Your task to perform on an android device: Do I have any events this weekend? Image 0: 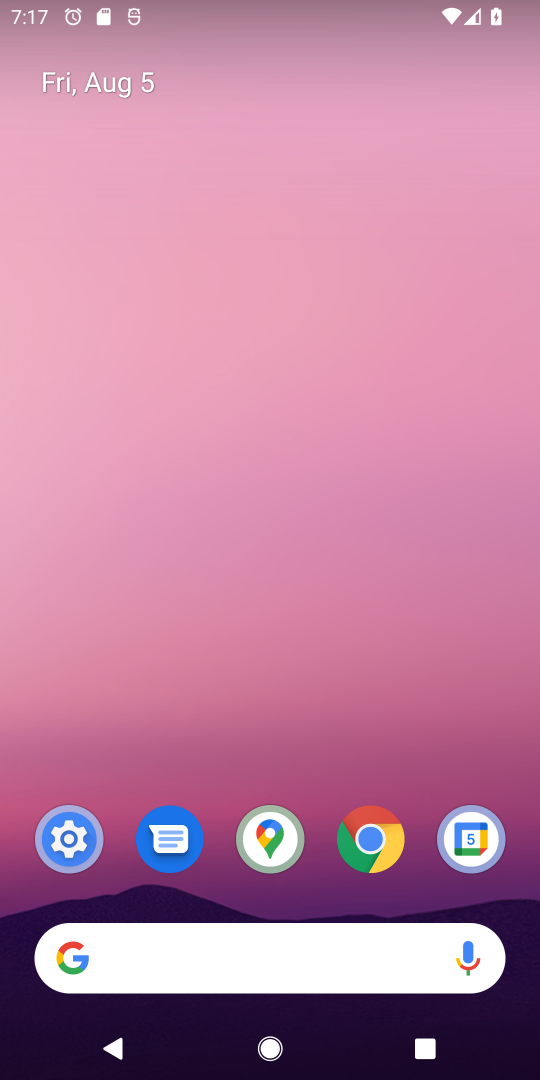
Step 0: drag from (292, 739) to (268, 275)
Your task to perform on an android device: Do I have any events this weekend? Image 1: 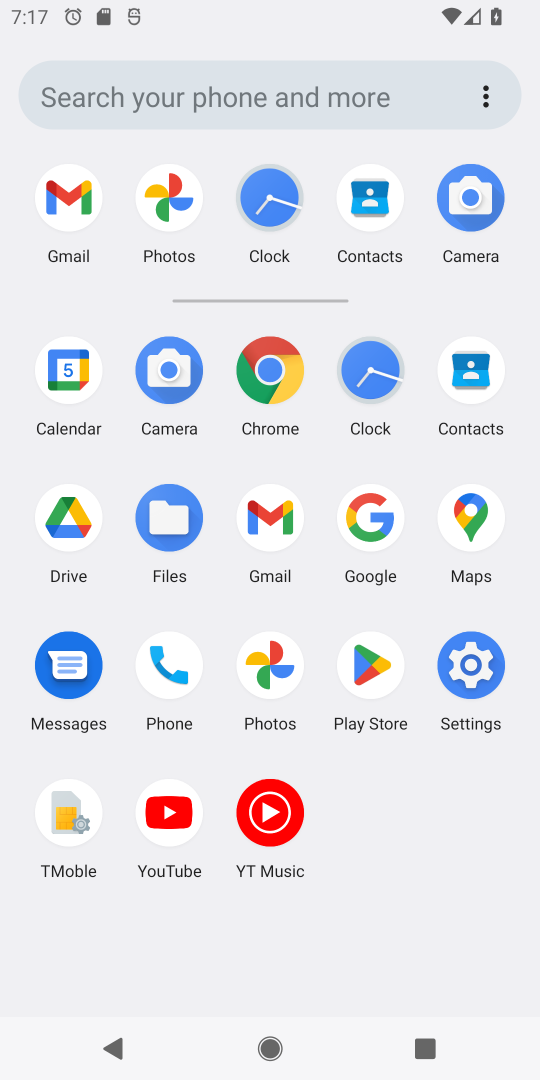
Step 1: click (93, 378)
Your task to perform on an android device: Do I have any events this weekend? Image 2: 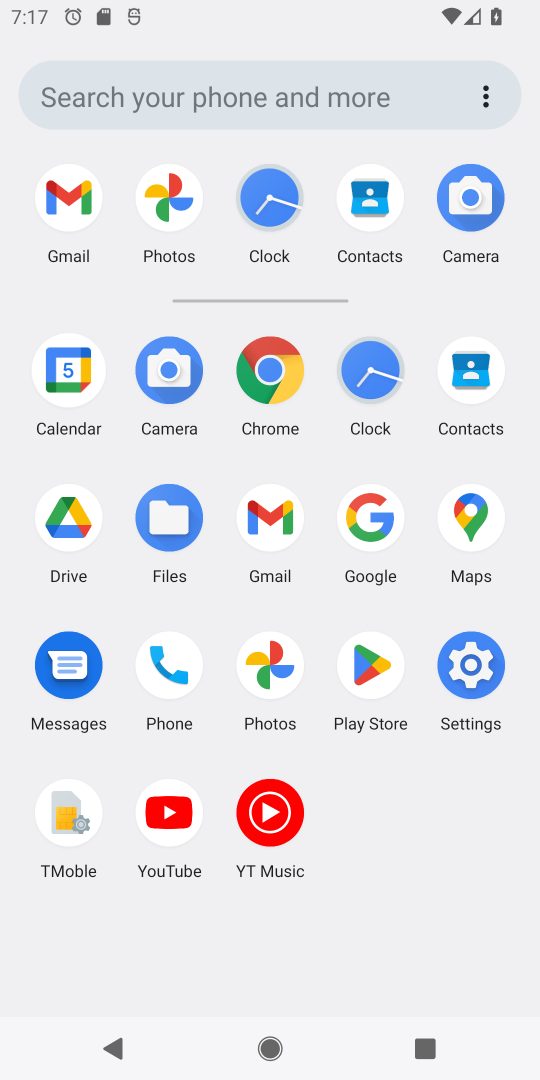
Step 2: click (59, 378)
Your task to perform on an android device: Do I have any events this weekend? Image 3: 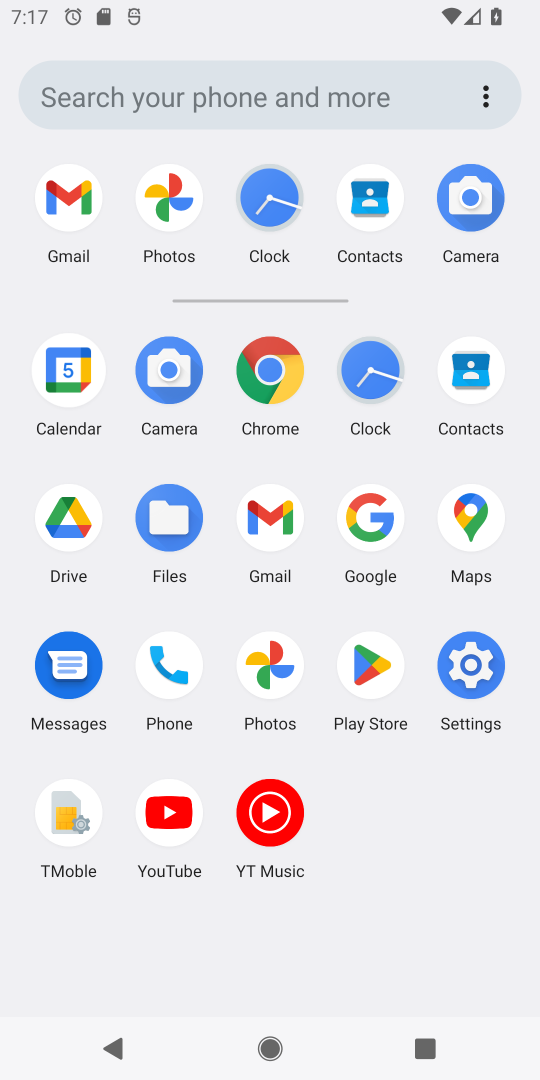
Step 3: click (59, 378)
Your task to perform on an android device: Do I have any events this weekend? Image 4: 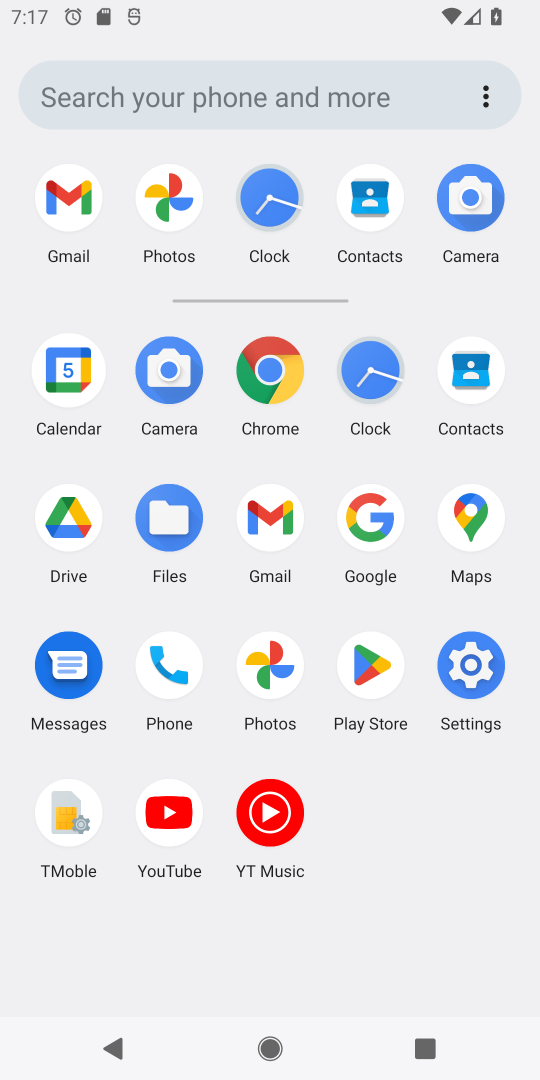
Step 4: click (59, 378)
Your task to perform on an android device: Do I have any events this weekend? Image 5: 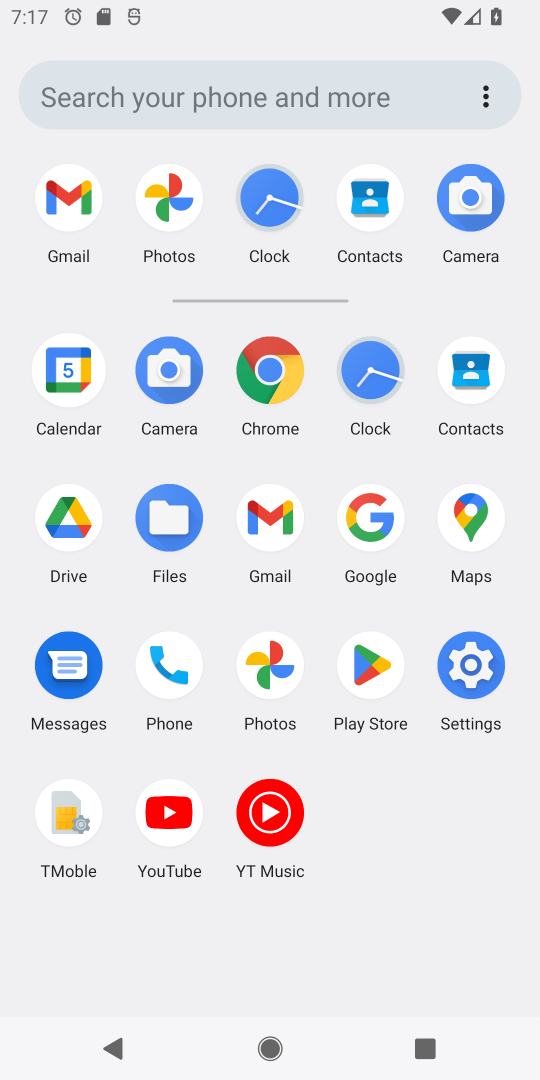
Step 5: click (59, 378)
Your task to perform on an android device: Do I have any events this weekend? Image 6: 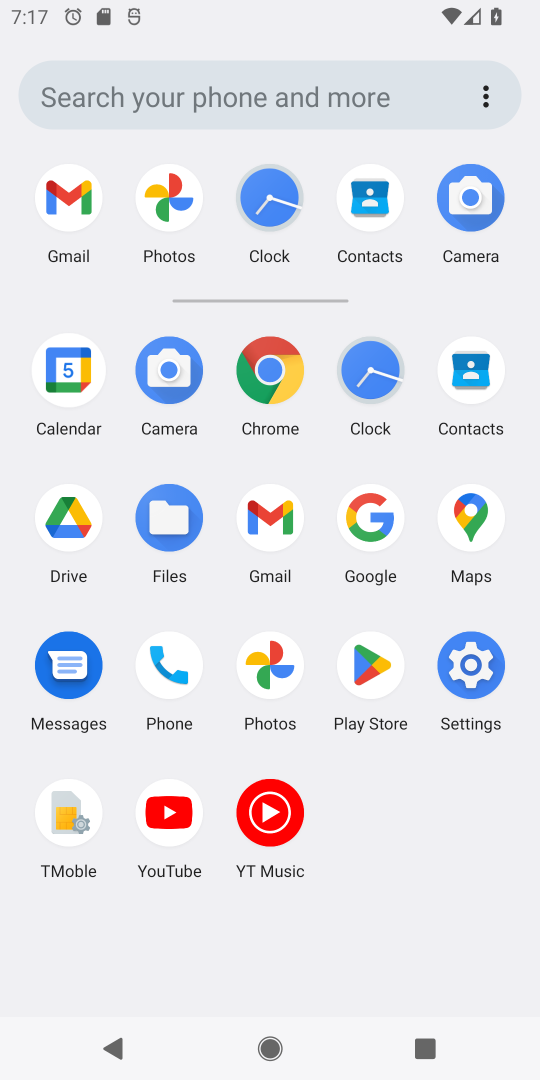
Step 6: click (59, 378)
Your task to perform on an android device: Do I have any events this weekend? Image 7: 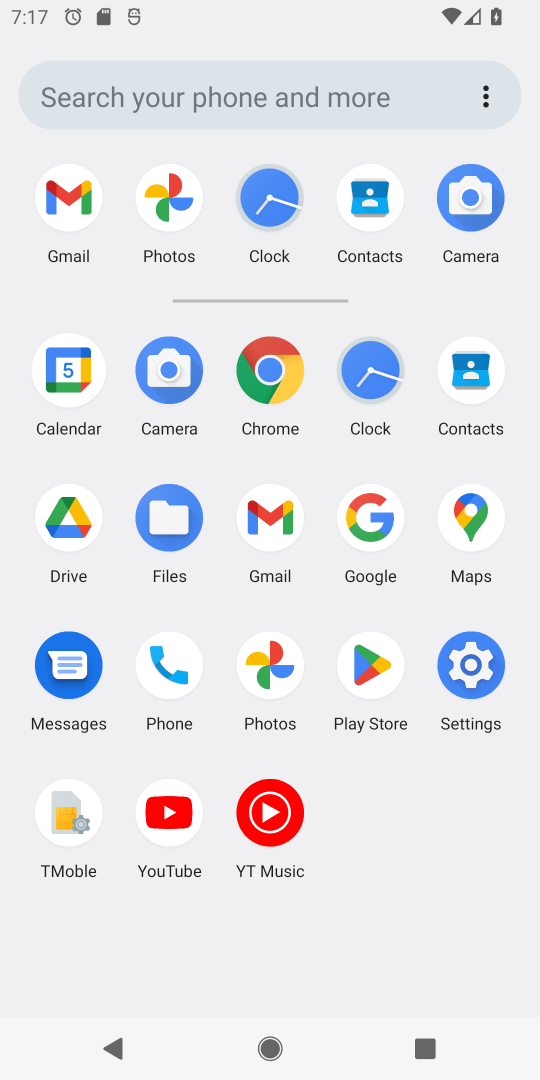
Step 7: click (59, 378)
Your task to perform on an android device: Do I have any events this weekend? Image 8: 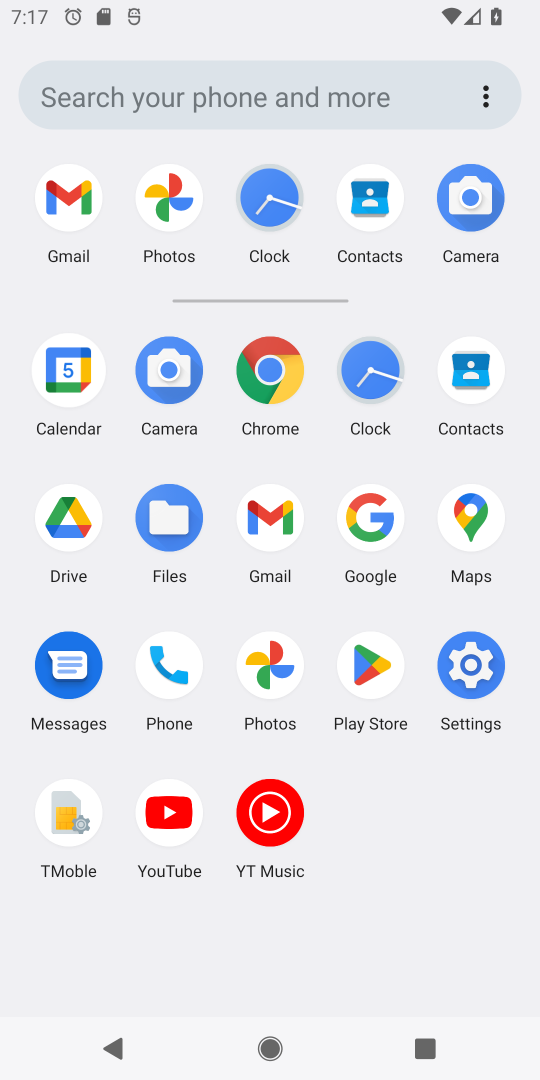
Step 8: click (76, 382)
Your task to perform on an android device: Do I have any events this weekend? Image 9: 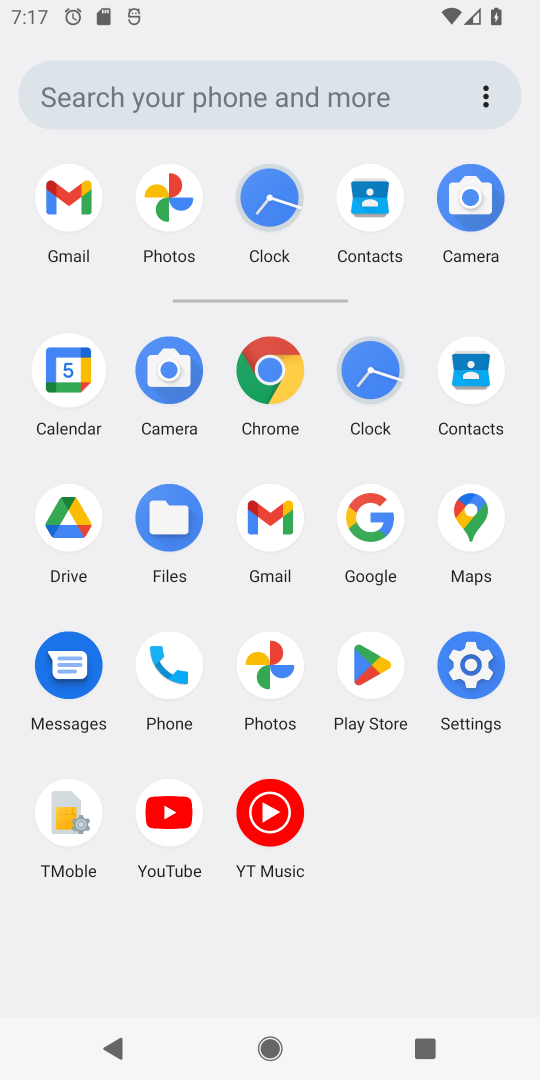
Step 9: click (54, 359)
Your task to perform on an android device: Do I have any events this weekend? Image 10: 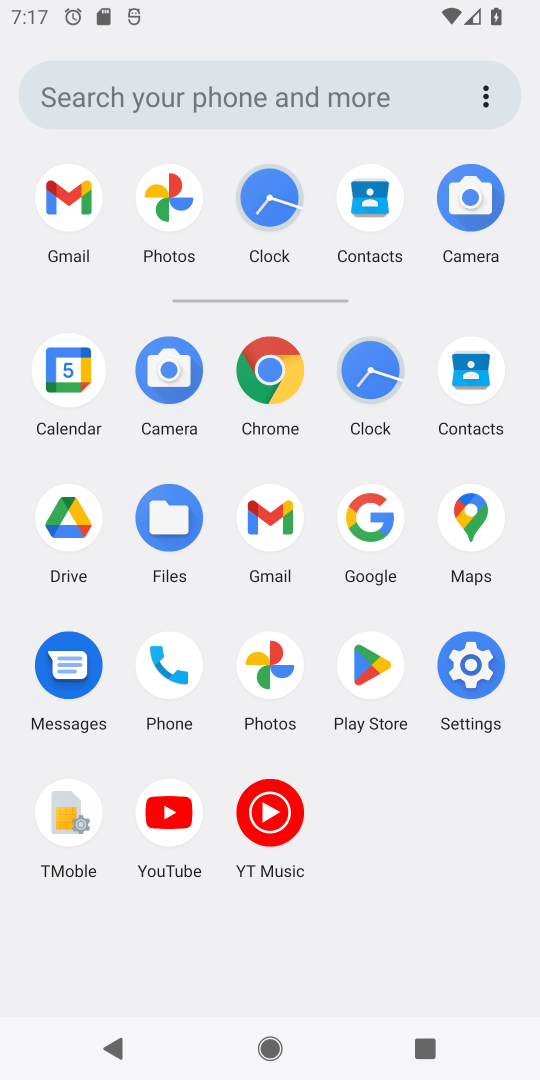
Step 10: task complete